Your task to perform on an android device: turn notification dots off Image 0: 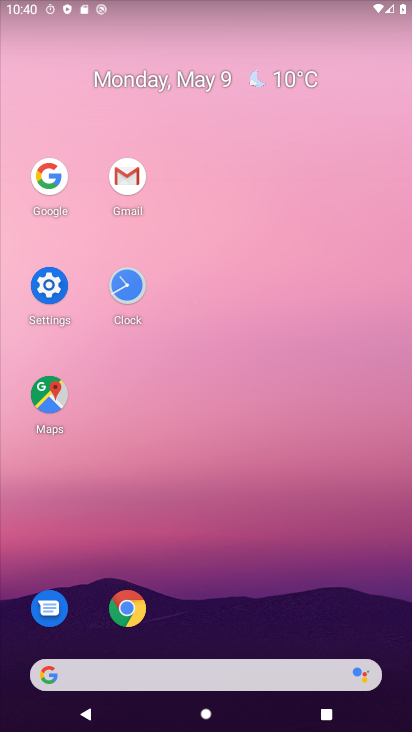
Step 0: click (63, 271)
Your task to perform on an android device: turn notification dots off Image 1: 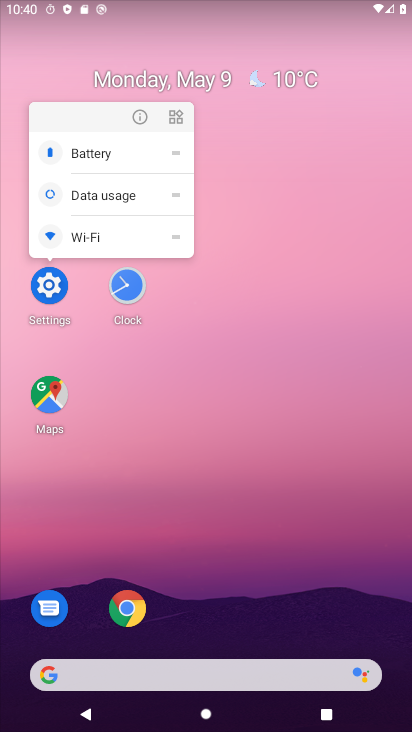
Step 1: click (50, 277)
Your task to perform on an android device: turn notification dots off Image 2: 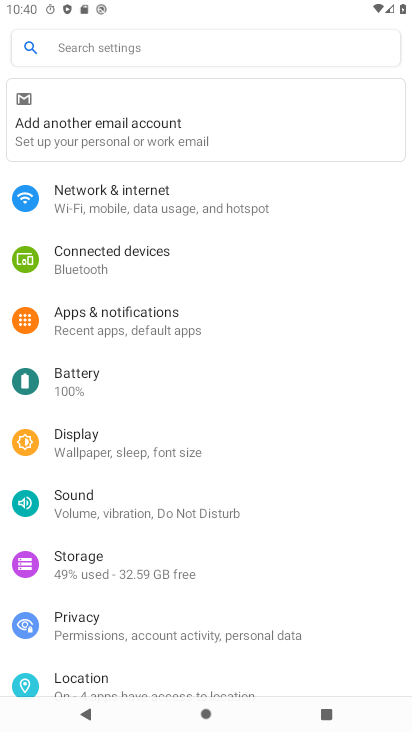
Step 2: click (132, 298)
Your task to perform on an android device: turn notification dots off Image 3: 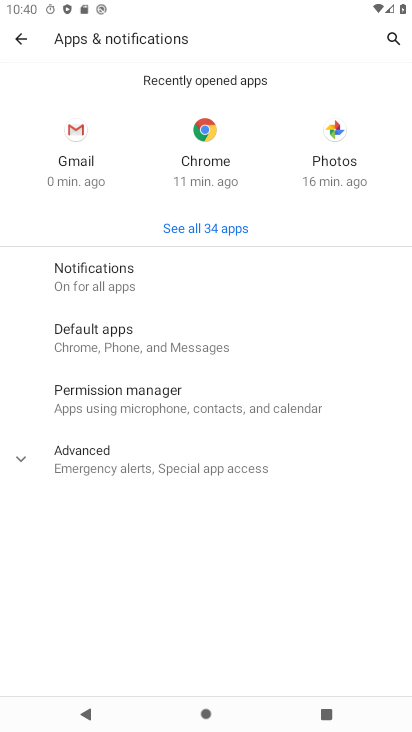
Step 3: click (94, 259)
Your task to perform on an android device: turn notification dots off Image 4: 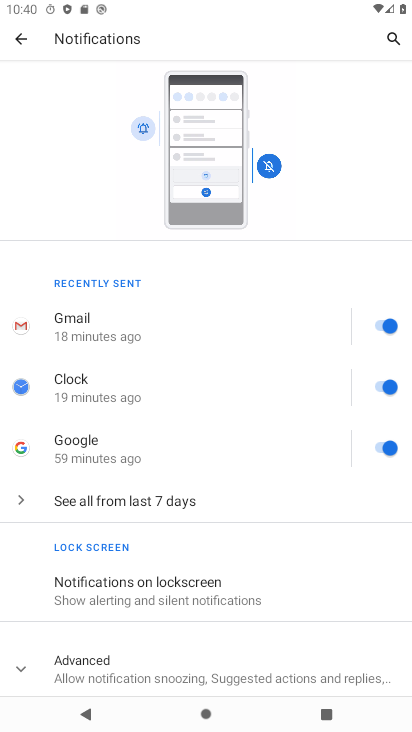
Step 4: click (63, 658)
Your task to perform on an android device: turn notification dots off Image 5: 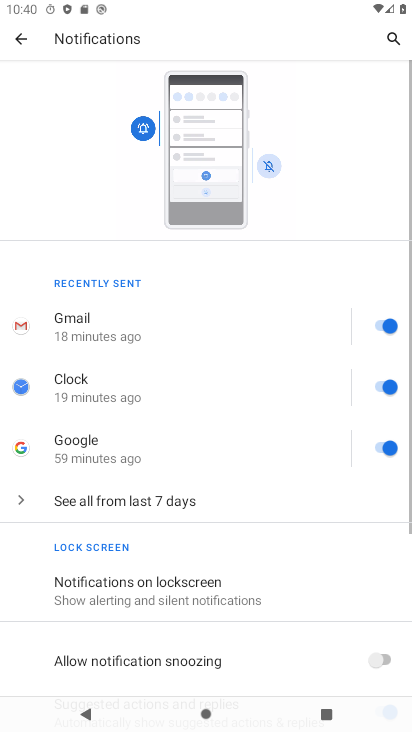
Step 5: drag from (215, 610) to (267, 260)
Your task to perform on an android device: turn notification dots off Image 6: 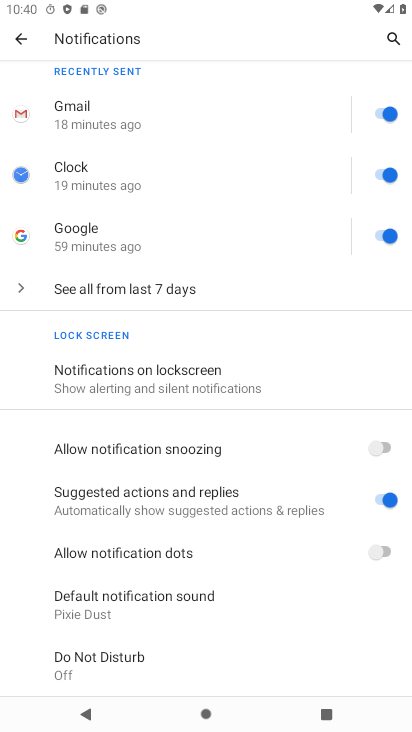
Step 6: click (388, 561)
Your task to perform on an android device: turn notification dots off Image 7: 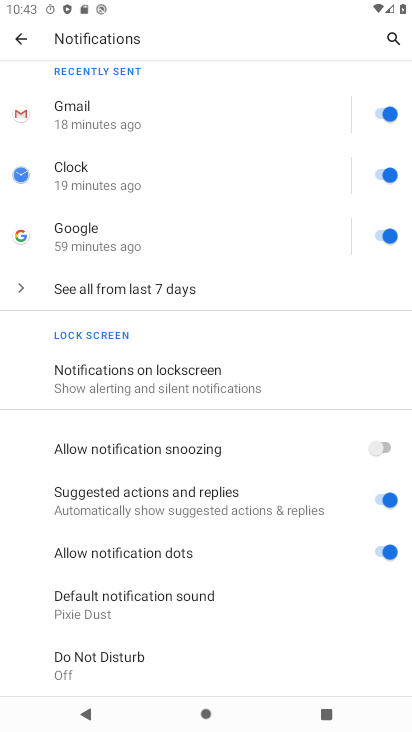
Step 7: task complete